Your task to perform on an android device: open chrome privacy settings Image 0: 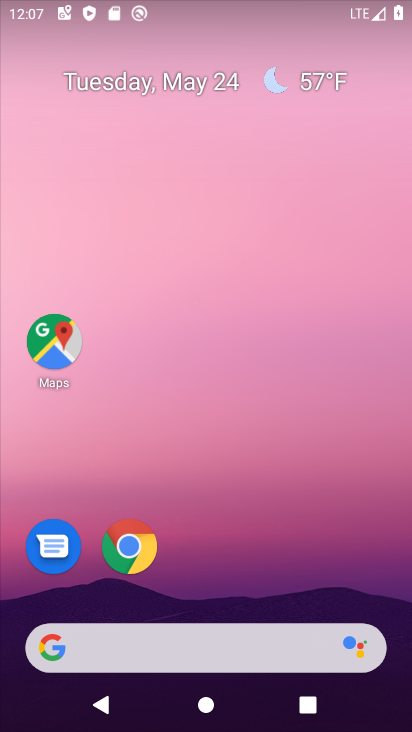
Step 0: drag from (198, 592) to (195, 230)
Your task to perform on an android device: open chrome privacy settings Image 1: 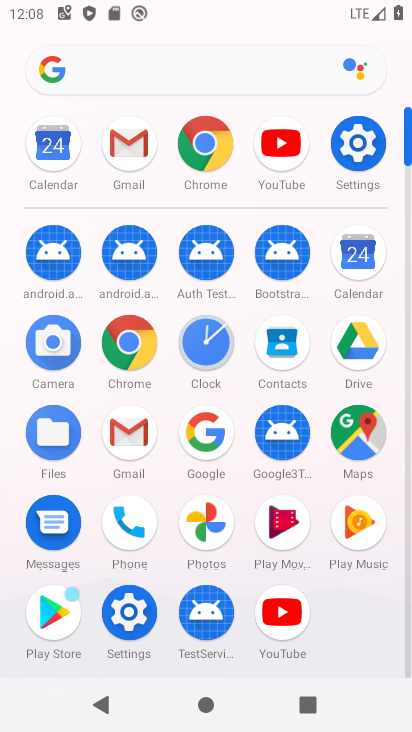
Step 1: click (134, 349)
Your task to perform on an android device: open chrome privacy settings Image 2: 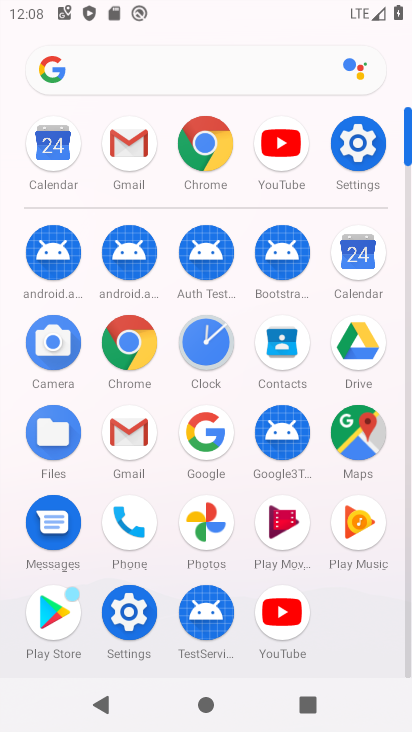
Step 2: click (134, 349)
Your task to perform on an android device: open chrome privacy settings Image 3: 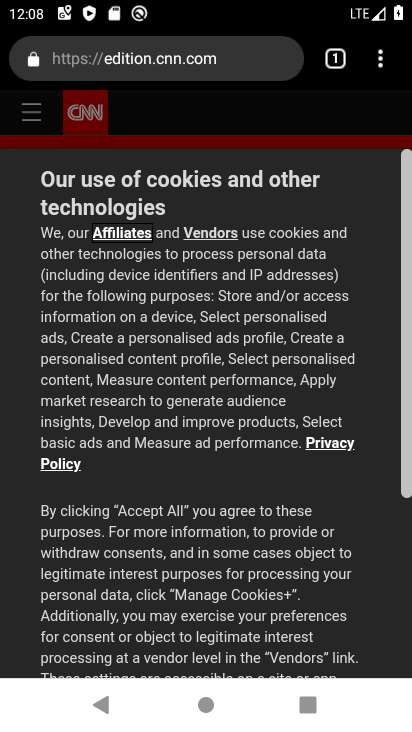
Step 3: click (386, 49)
Your task to perform on an android device: open chrome privacy settings Image 4: 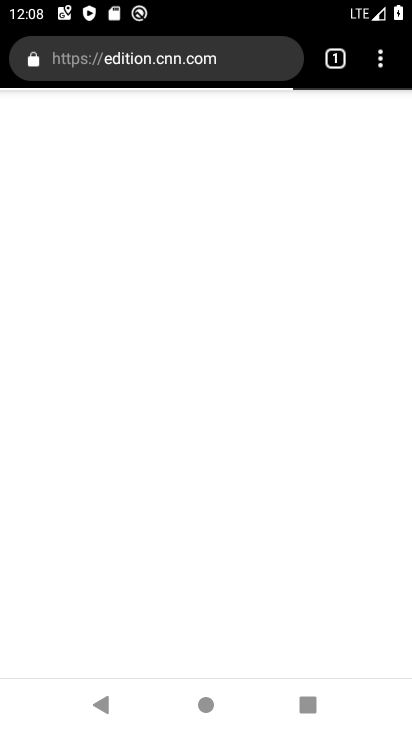
Step 4: click (381, 62)
Your task to perform on an android device: open chrome privacy settings Image 5: 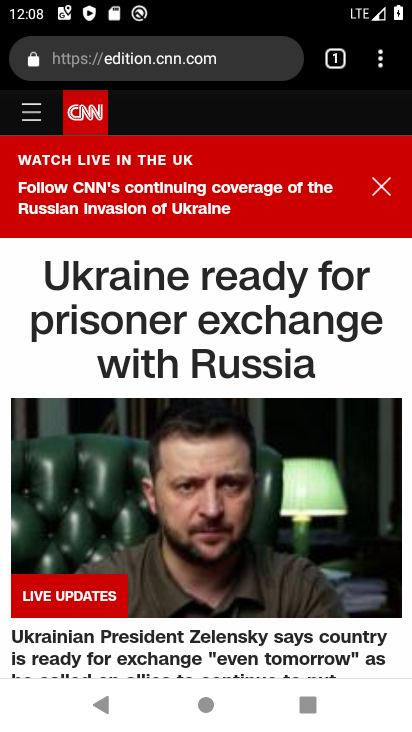
Step 5: click (381, 62)
Your task to perform on an android device: open chrome privacy settings Image 6: 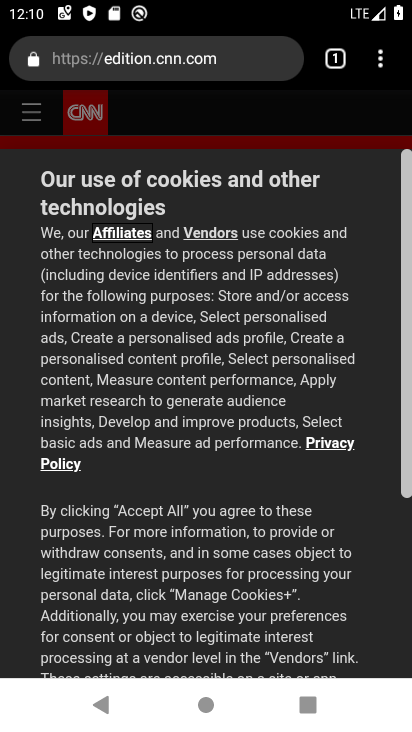
Step 6: click (395, 57)
Your task to perform on an android device: open chrome privacy settings Image 7: 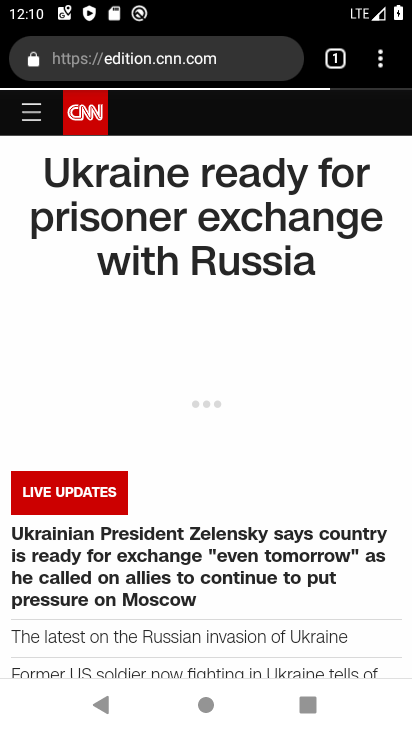
Step 7: click (374, 42)
Your task to perform on an android device: open chrome privacy settings Image 8: 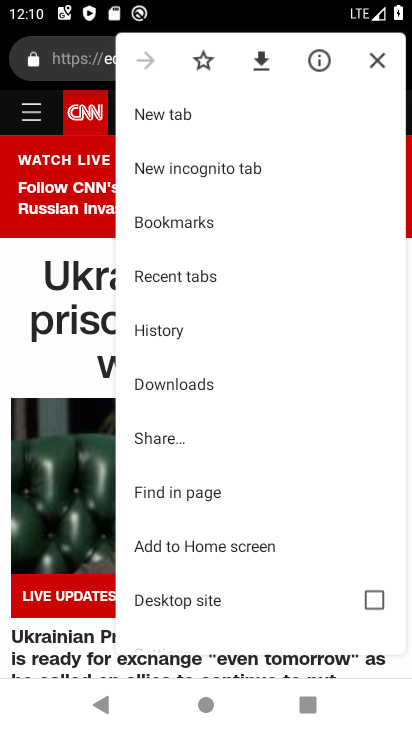
Step 8: drag from (188, 535) to (264, 40)
Your task to perform on an android device: open chrome privacy settings Image 9: 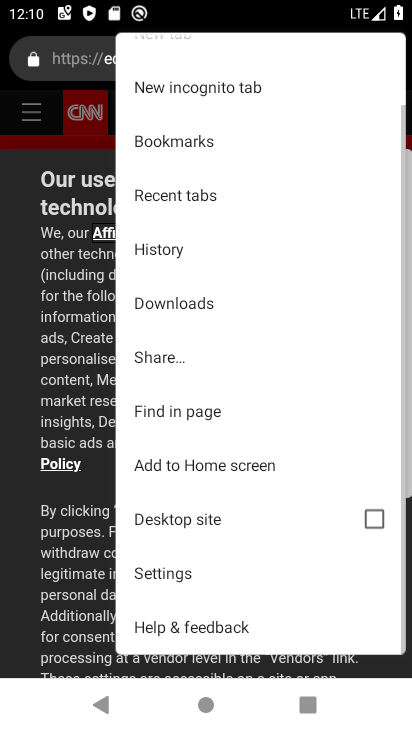
Step 9: click (171, 572)
Your task to perform on an android device: open chrome privacy settings Image 10: 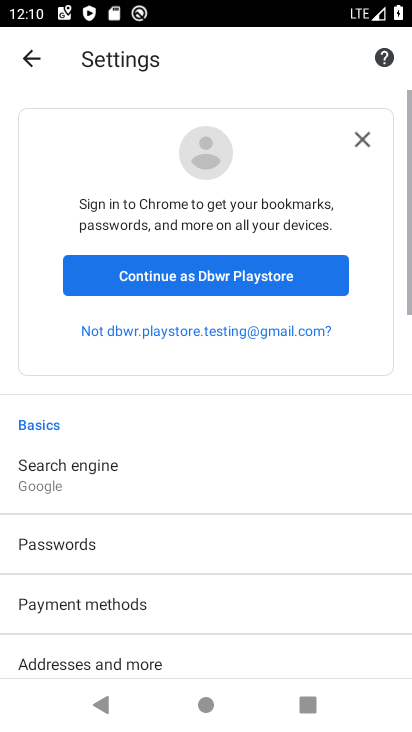
Step 10: drag from (259, 470) to (319, 180)
Your task to perform on an android device: open chrome privacy settings Image 11: 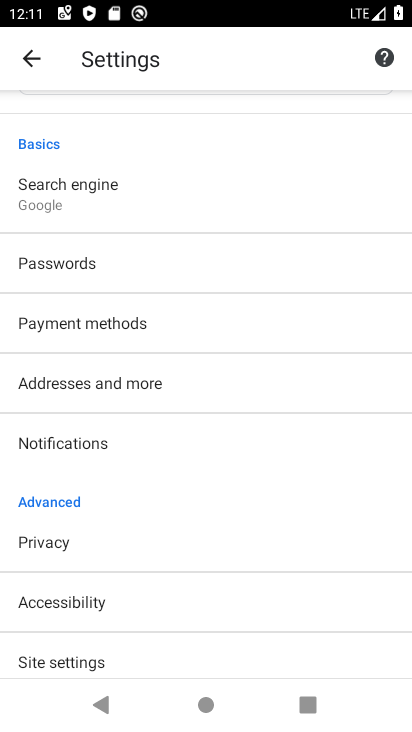
Step 11: click (102, 531)
Your task to perform on an android device: open chrome privacy settings Image 12: 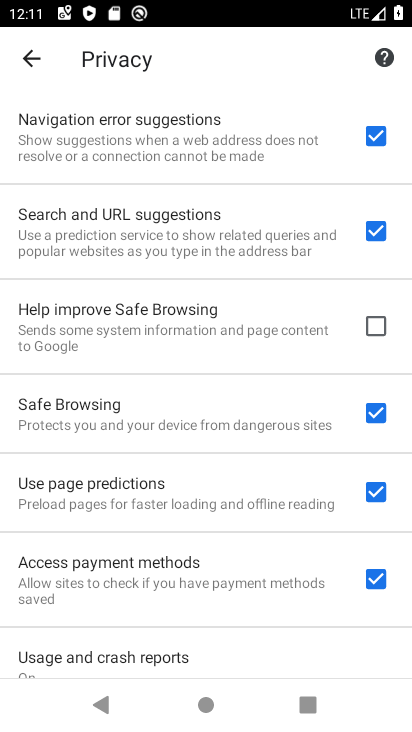
Step 12: task complete